Your task to perform on an android device: Go to Android settings Image 0: 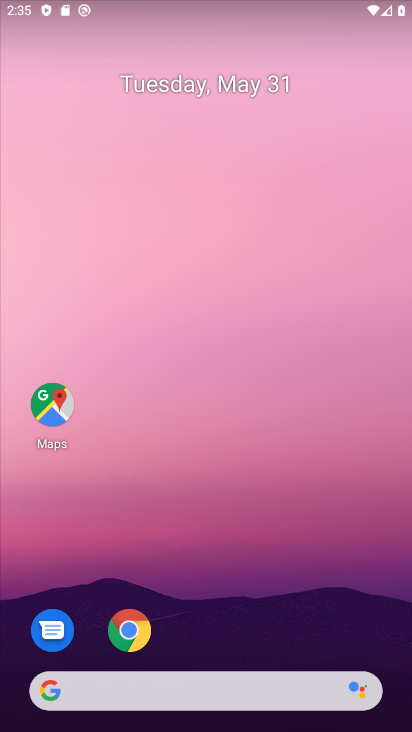
Step 0: drag from (279, 633) to (301, 17)
Your task to perform on an android device: Go to Android settings Image 1: 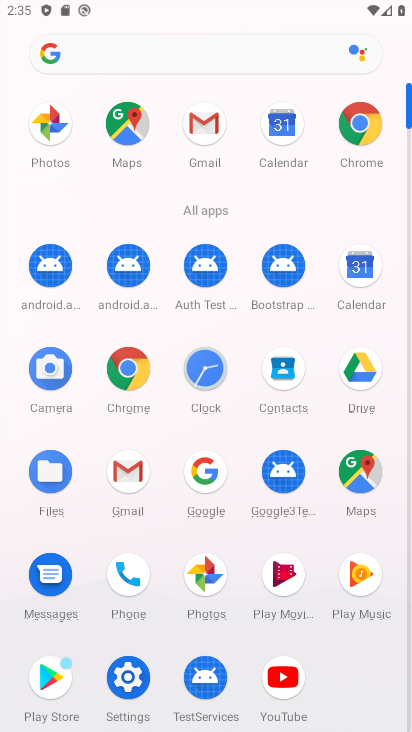
Step 1: drag from (311, 628) to (317, 92)
Your task to perform on an android device: Go to Android settings Image 2: 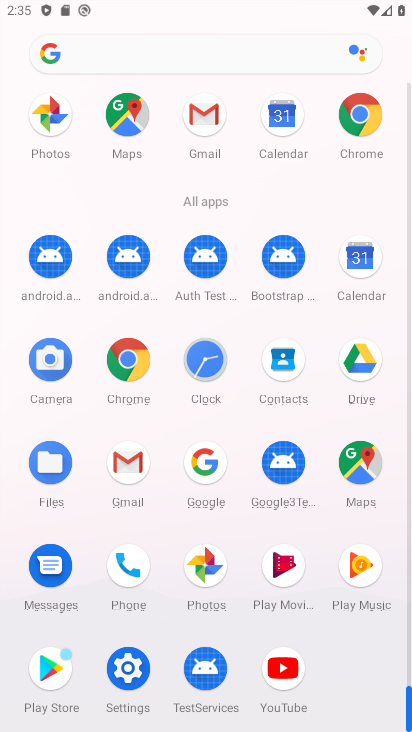
Step 2: click (123, 673)
Your task to perform on an android device: Go to Android settings Image 3: 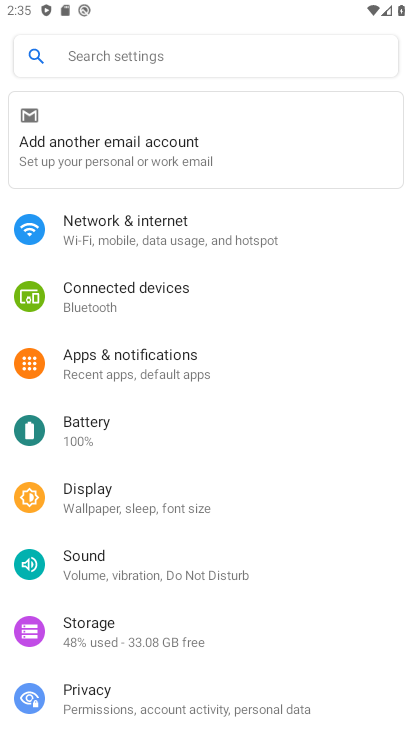
Step 3: drag from (277, 663) to (306, 92)
Your task to perform on an android device: Go to Android settings Image 4: 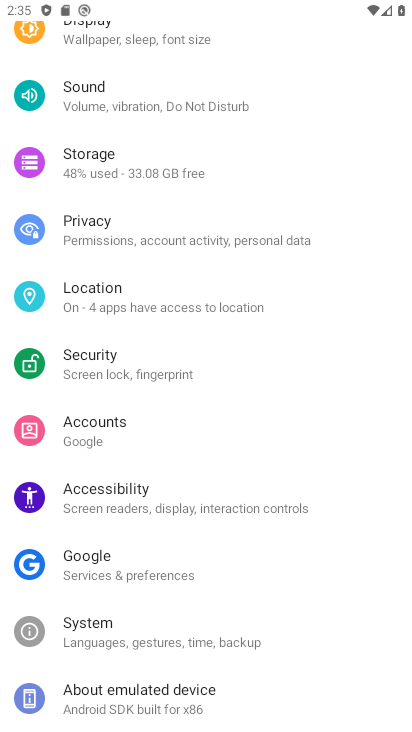
Step 4: click (183, 691)
Your task to perform on an android device: Go to Android settings Image 5: 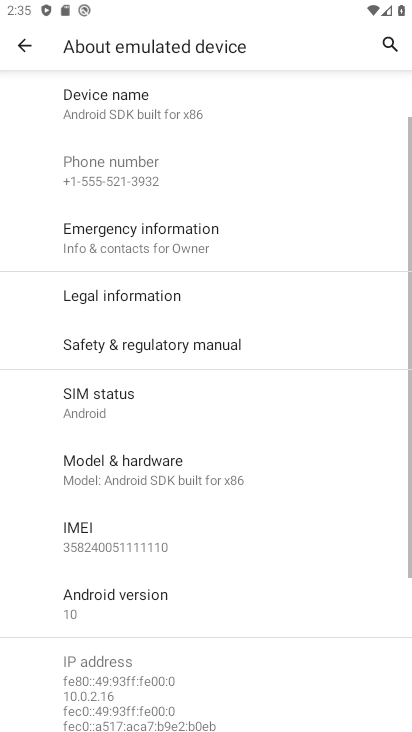
Step 5: drag from (264, 666) to (285, 215)
Your task to perform on an android device: Go to Android settings Image 6: 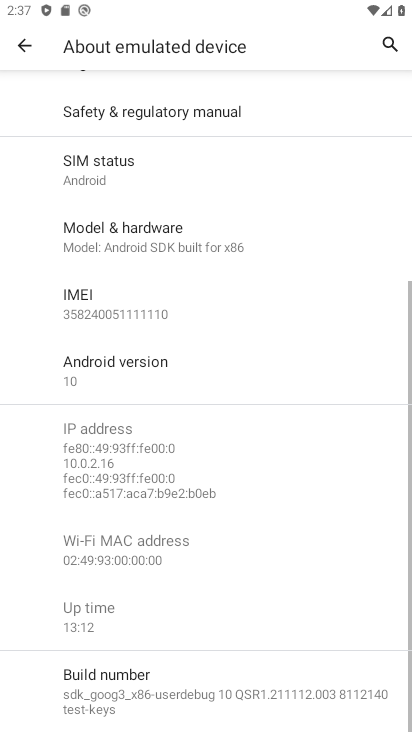
Step 6: drag from (136, 187) to (190, 433)
Your task to perform on an android device: Go to Android settings Image 7: 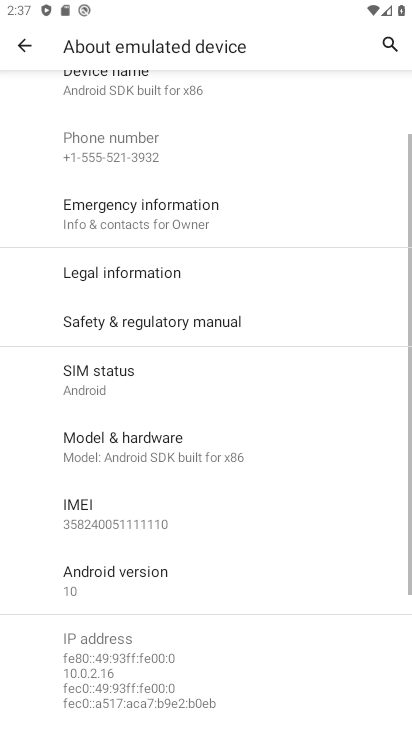
Step 7: drag from (145, 119) to (138, 345)
Your task to perform on an android device: Go to Android settings Image 8: 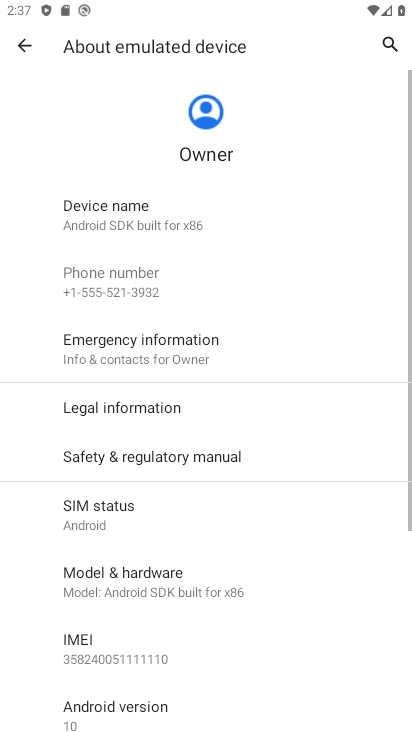
Step 8: drag from (152, 204) to (147, 265)
Your task to perform on an android device: Go to Android settings Image 9: 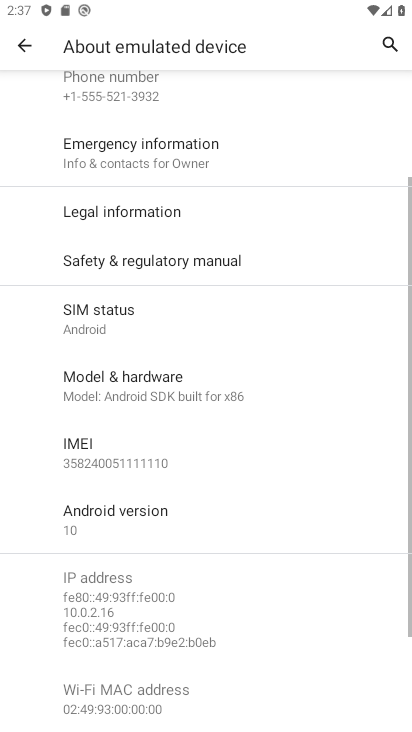
Step 9: drag from (173, 496) to (241, 265)
Your task to perform on an android device: Go to Android settings Image 10: 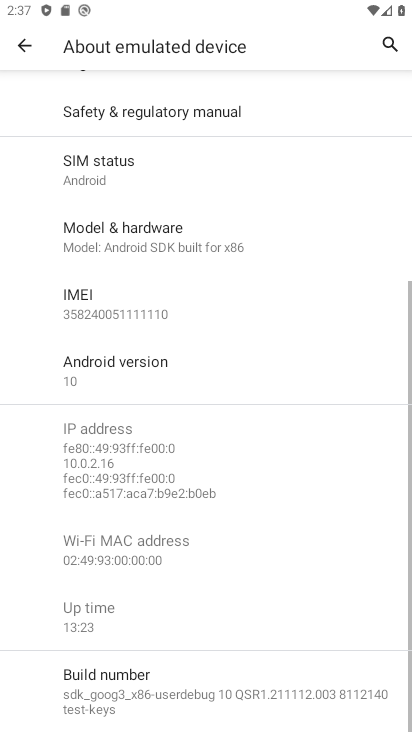
Step 10: click (132, 369)
Your task to perform on an android device: Go to Android settings Image 11: 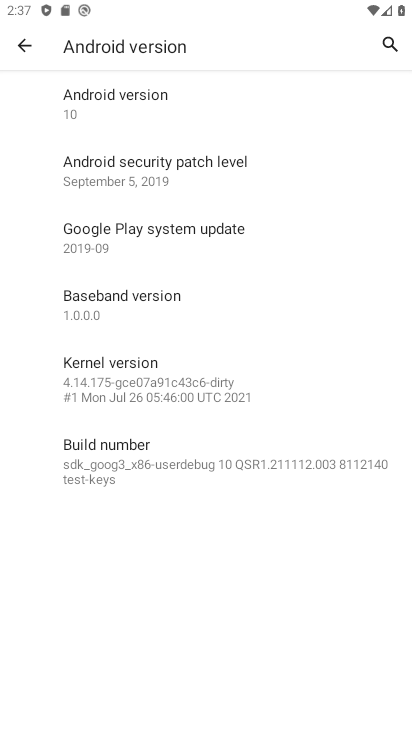
Step 11: task complete